Your task to perform on an android device: check out phone information Image 0: 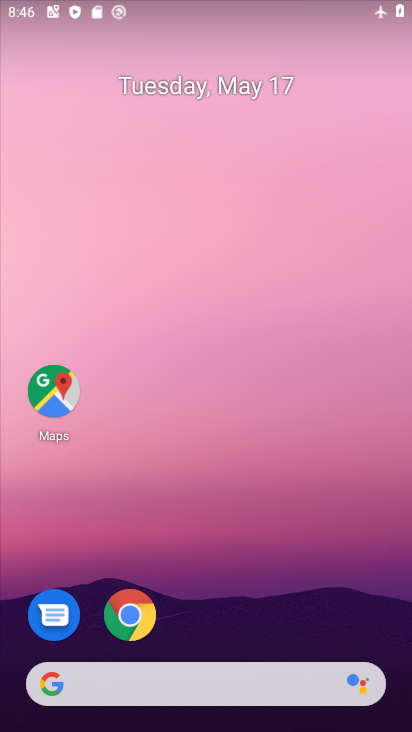
Step 0: drag from (232, 648) to (245, 245)
Your task to perform on an android device: check out phone information Image 1: 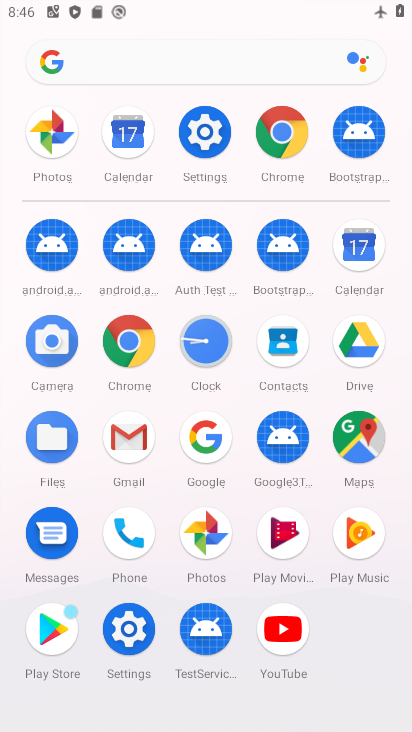
Step 1: click (187, 118)
Your task to perform on an android device: check out phone information Image 2: 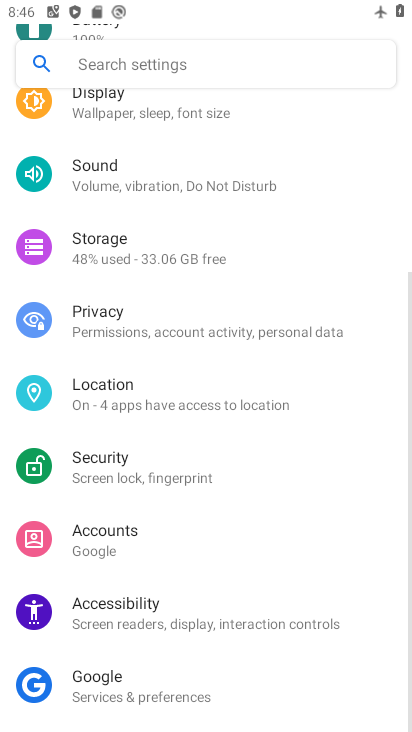
Step 2: drag from (240, 652) to (276, 78)
Your task to perform on an android device: check out phone information Image 3: 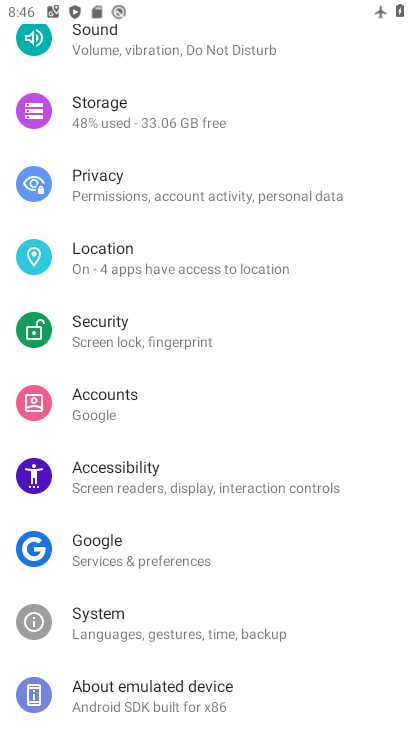
Step 3: drag from (234, 633) to (248, 266)
Your task to perform on an android device: check out phone information Image 4: 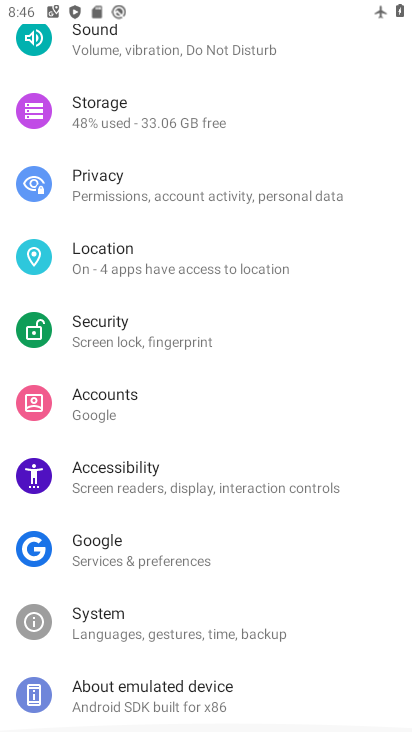
Step 4: click (186, 684)
Your task to perform on an android device: check out phone information Image 5: 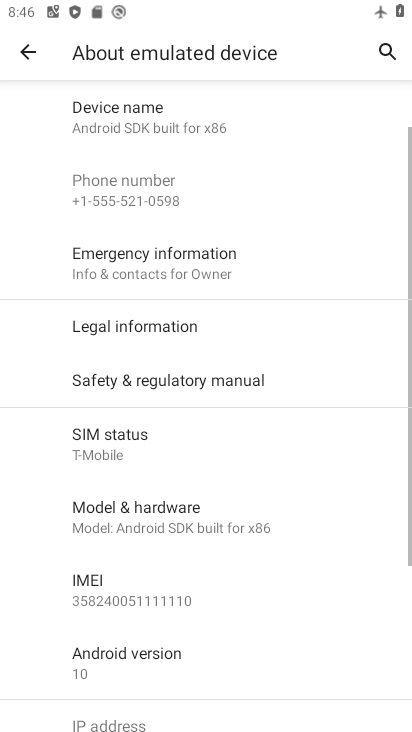
Step 5: task complete